Your task to perform on an android device: Go to Wikipedia Image 0: 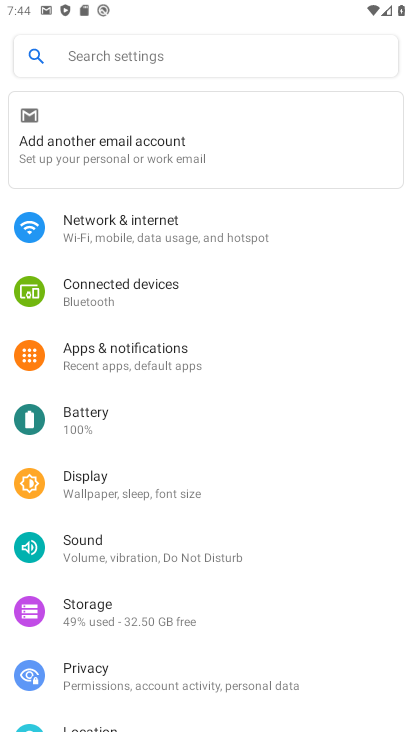
Step 0: press home button
Your task to perform on an android device: Go to Wikipedia Image 1: 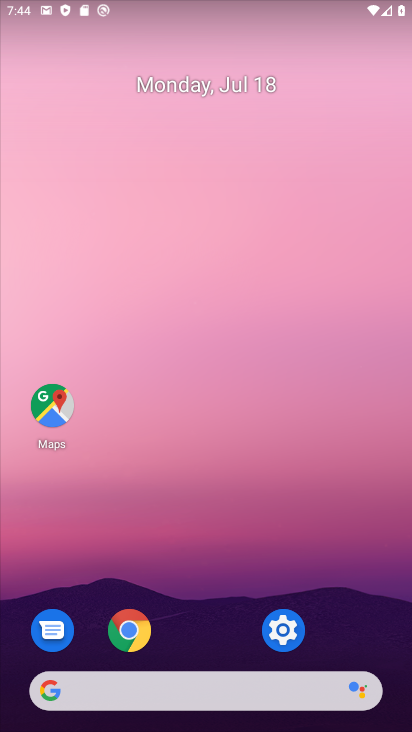
Step 1: click (125, 629)
Your task to perform on an android device: Go to Wikipedia Image 2: 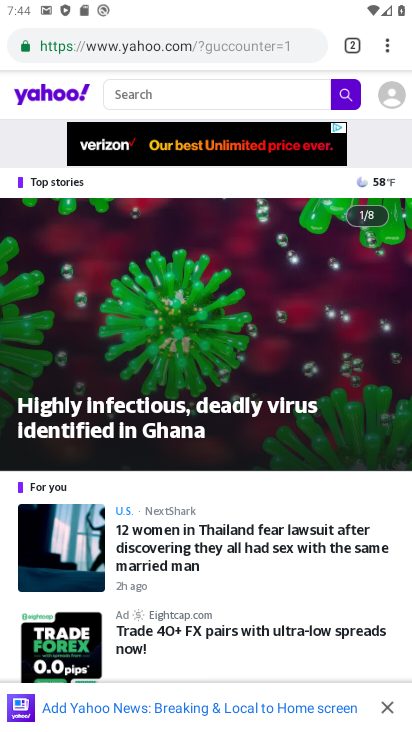
Step 2: click (386, 49)
Your task to perform on an android device: Go to Wikipedia Image 3: 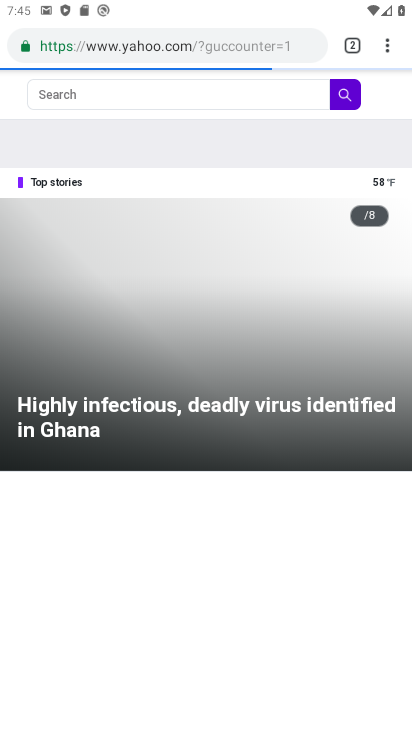
Step 3: click (387, 49)
Your task to perform on an android device: Go to Wikipedia Image 4: 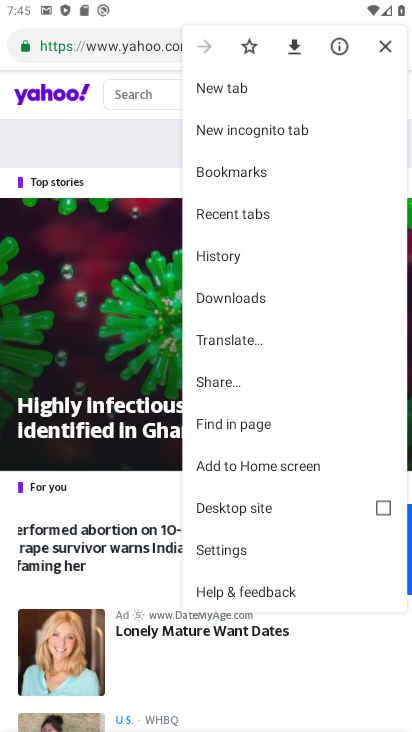
Step 4: click (247, 90)
Your task to perform on an android device: Go to Wikipedia Image 5: 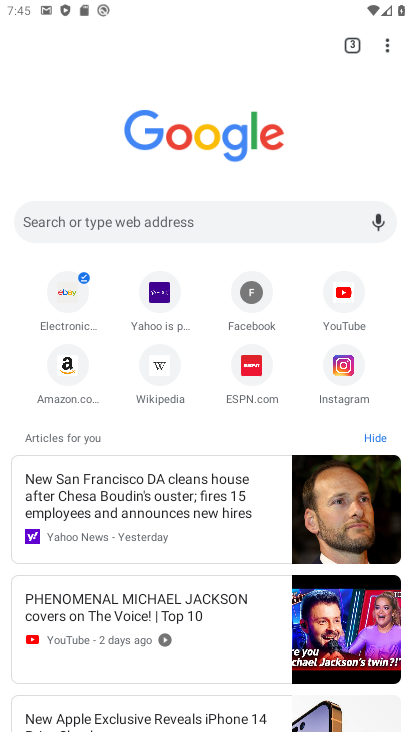
Step 5: click (155, 373)
Your task to perform on an android device: Go to Wikipedia Image 6: 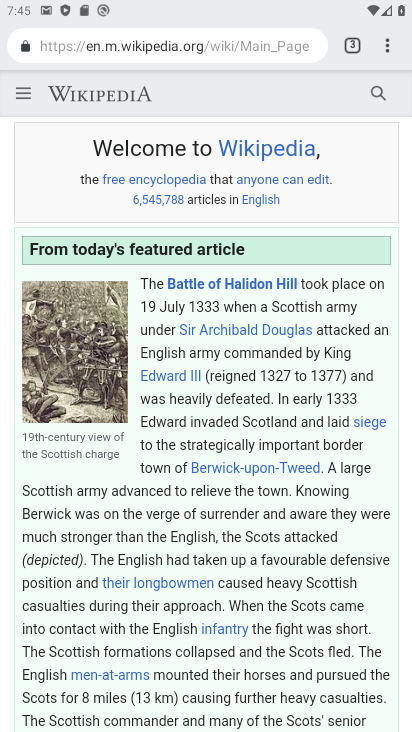
Step 6: task complete